Your task to perform on an android device: Open Yahoo.com Image 0: 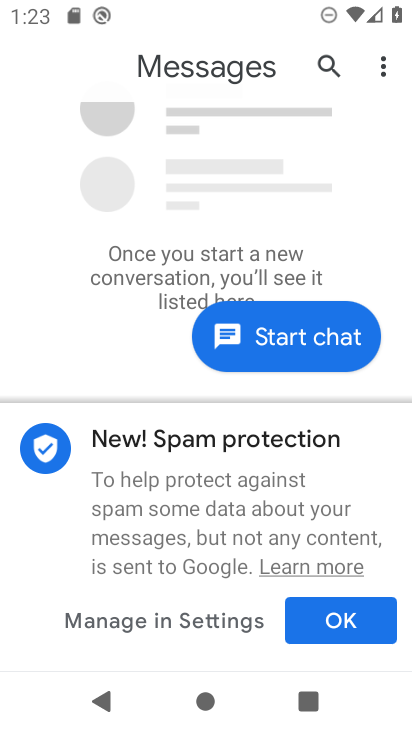
Step 0: press home button
Your task to perform on an android device: Open Yahoo.com Image 1: 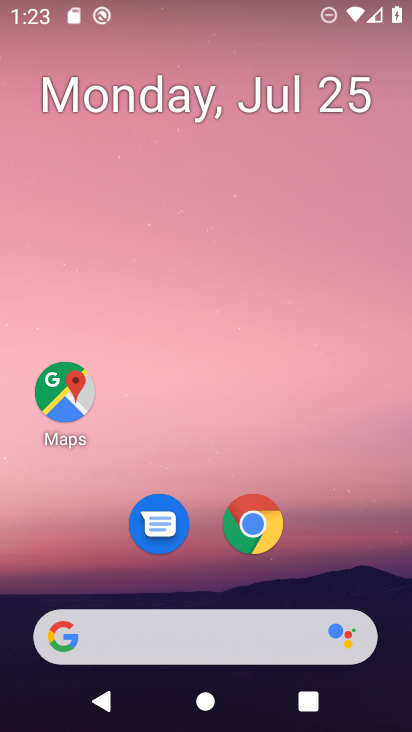
Step 1: click (244, 532)
Your task to perform on an android device: Open Yahoo.com Image 2: 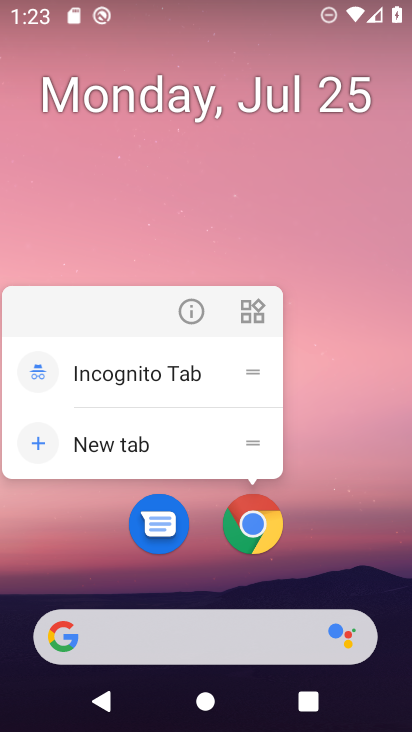
Step 2: click (247, 527)
Your task to perform on an android device: Open Yahoo.com Image 3: 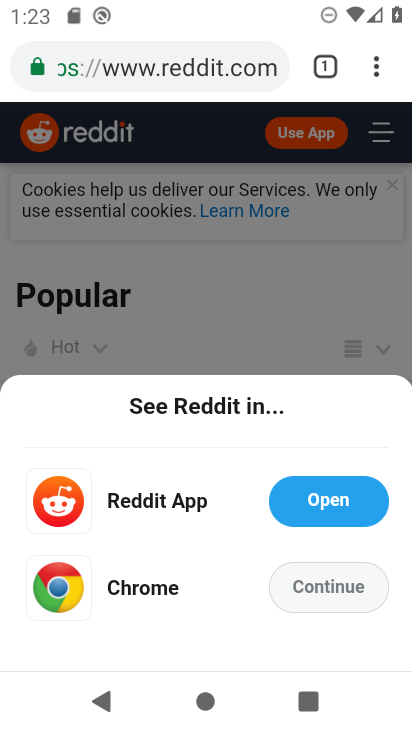
Step 3: drag from (376, 70) to (215, 139)
Your task to perform on an android device: Open Yahoo.com Image 4: 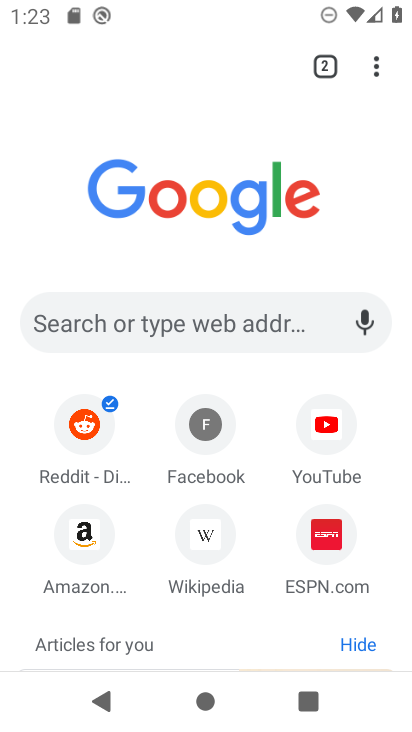
Step 4: click (143, 317)
Your task to perform on an android device: Open Yahoo.com Image 5: 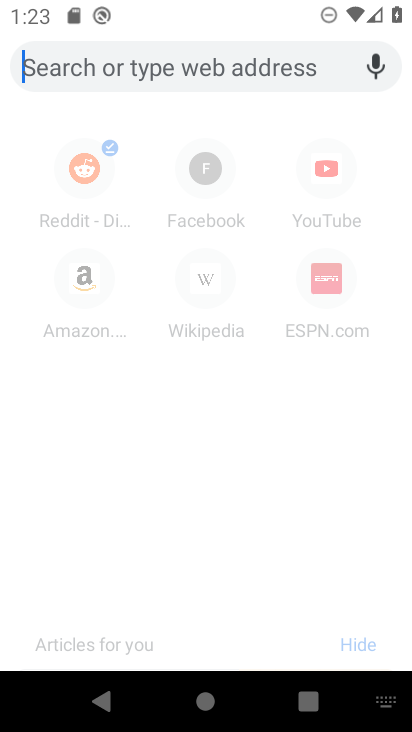
Step 5: type " Yahoo.com"
Your task to perform on an android device: Open Yahoo.com Image 6: 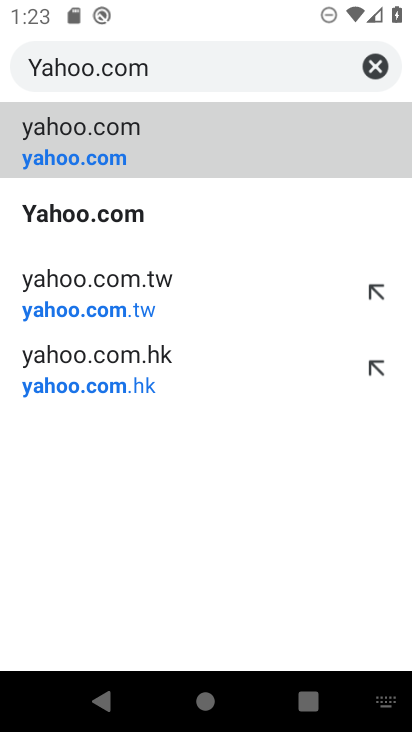
Step 6: click (86, 138)
Your task to perform on an android device: Open Yahoo.com Image 7: 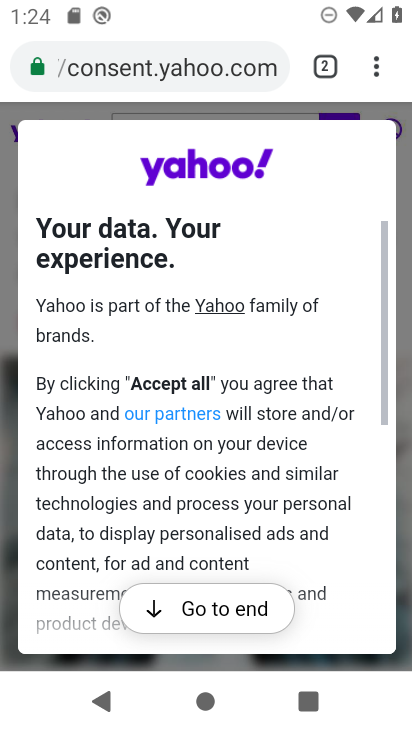
Step 7: click (204, 613)
Your task to perform on an android device: Open Yahoo.com Image 8: 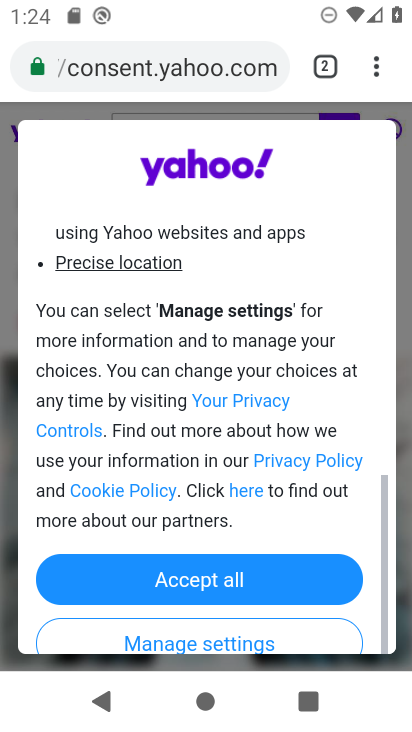
Step 8: click (204, 579)
Your task to perform on an android device: Open Yahoo.com Image 9: 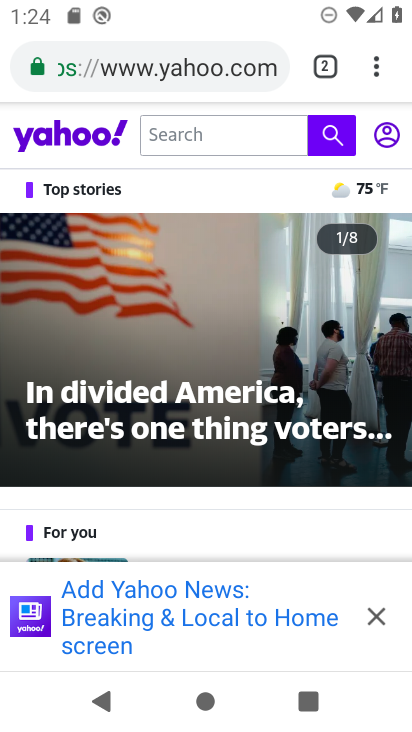
Step 9: task complete